Your task to perform on an android device: change notifications settings Image 0: 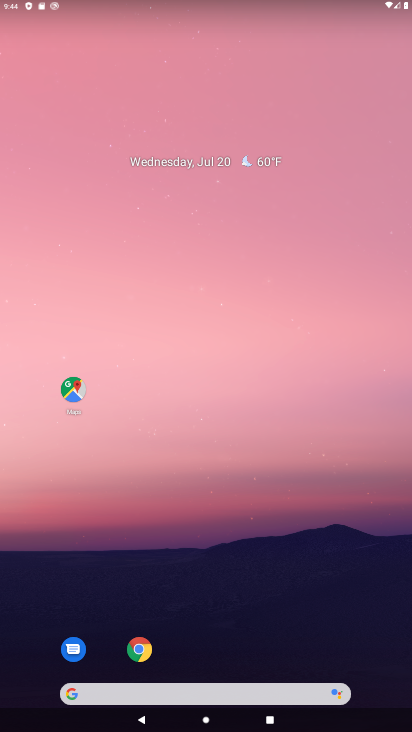
Step 0: drag from (298, 663) to (293, 280)
Your task to perform on an android device: change notifications settings Image 1: 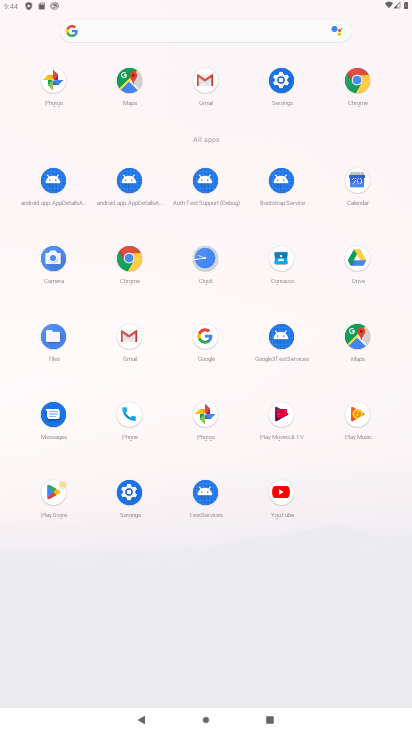
Step 1: click (127, 491)
Your task to perform on an android device: change notifications settings Image 2: 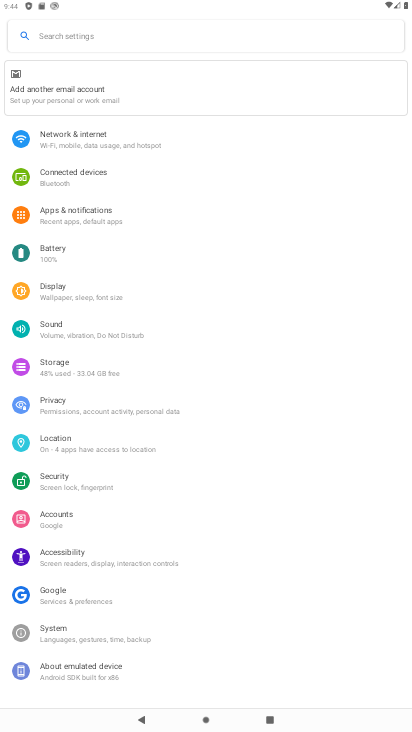
Step 2: click (130, 212)
Your task to perform on an android device: change notifications settings Image 3: 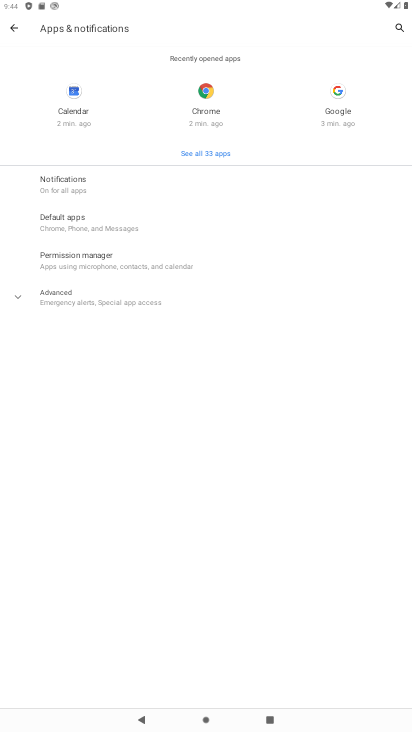
Step 3: click (140, 189)
Your task to perform on an android device: change notifications settings Image 4: 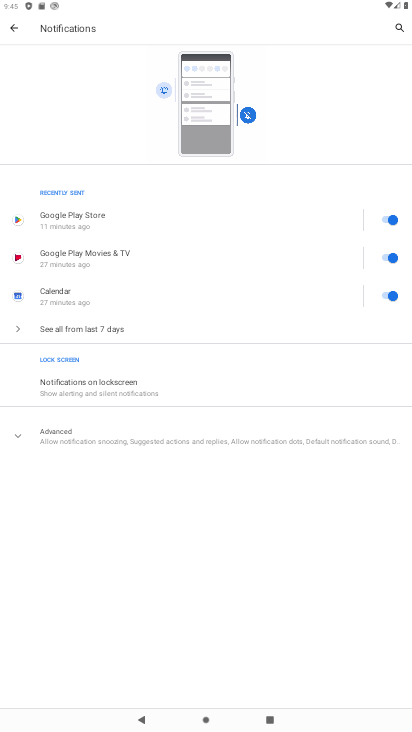
Step 4: click (219, 451)
Your task to perform on an android device: change notifications settings Image 5: 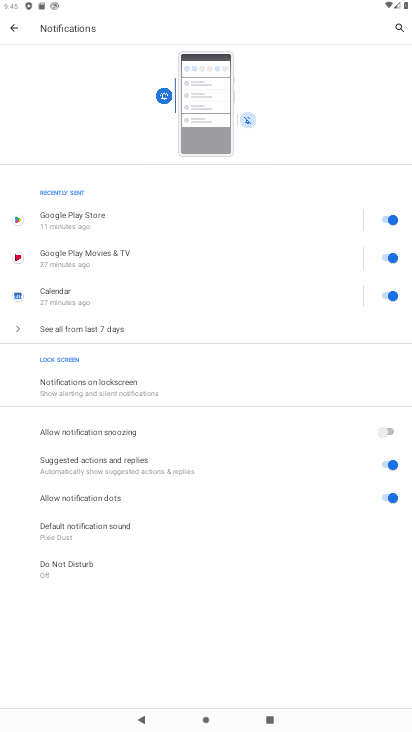
Step 5: click (393, 466)
Your task to perform on an android device: change notifications settings Image 6: 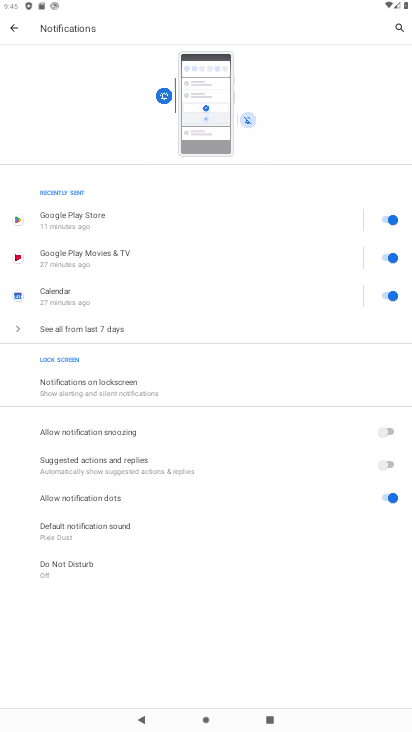
Step 6: click (398, 501)
Your task to perform on an android device: change notifications settings Image 7: 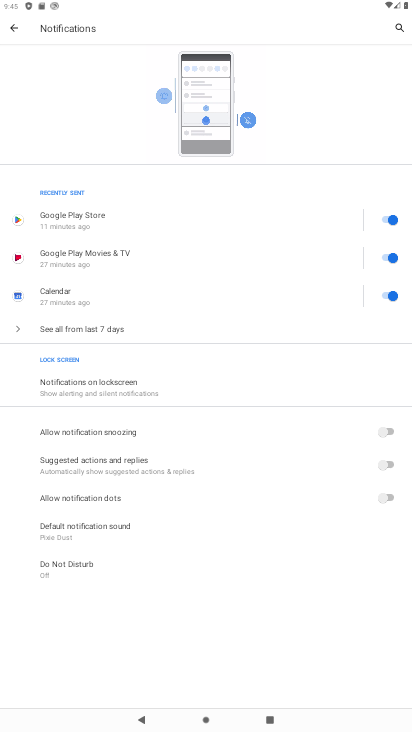
Step 7: click (388, 434)
Your task to perform on an android device: change notifications settings Image 8: 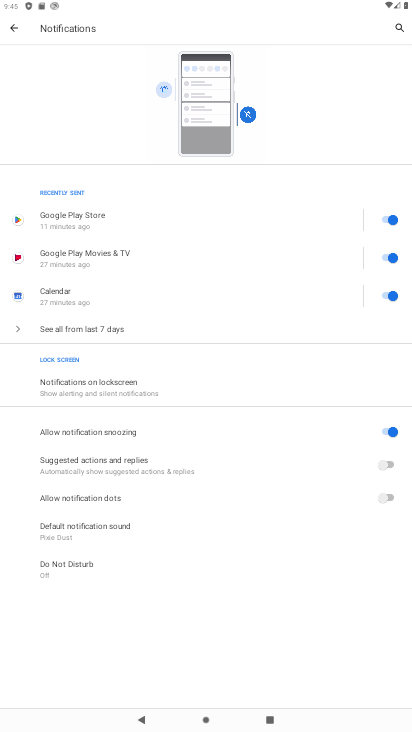
Step 8: task complete